Your task to perform on an android device: Open sound settings Image 0: 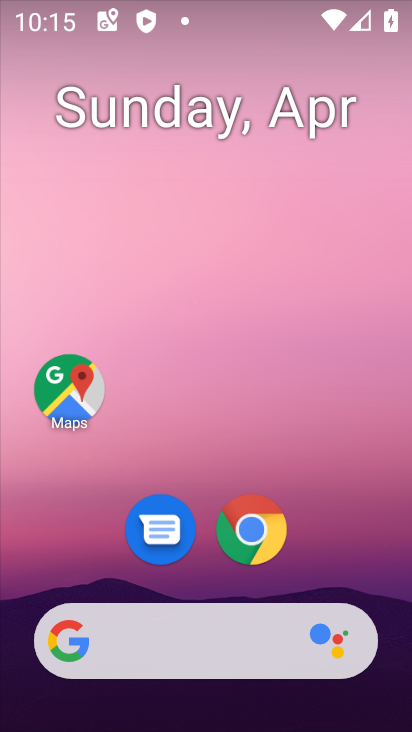
Step 0: drag from (212, 522) to (281, 188)
Your task to perform on an android device: Open sound settings Image 1: 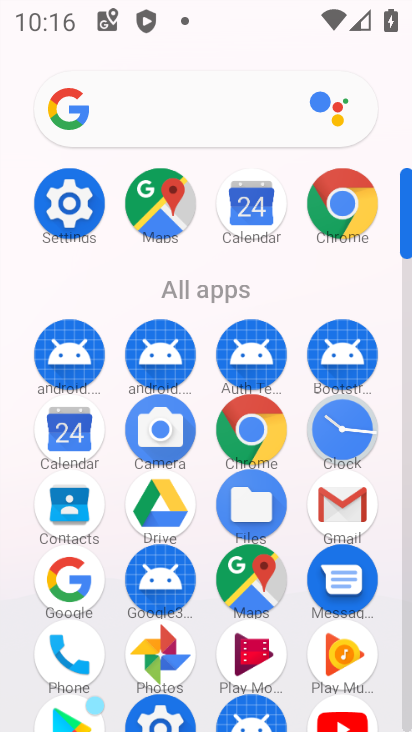
Step 1: click (68, 195)
Your task to perform on an android device: Open sound settings Image 2: 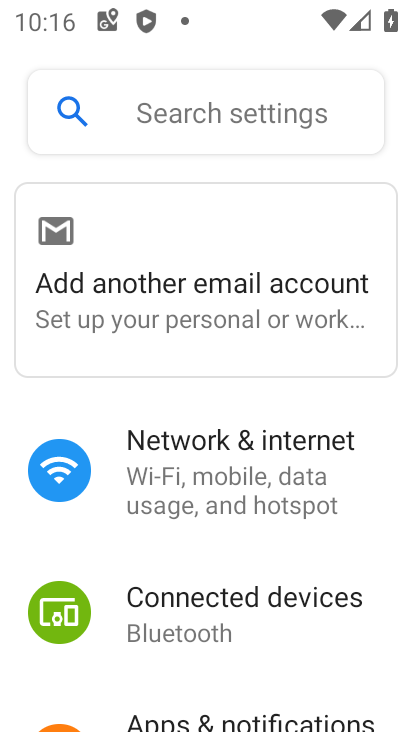
Step 2: drag from (199, 576) to (264, 190)
Your task to perform on an android device: Open sound settings Image 3: 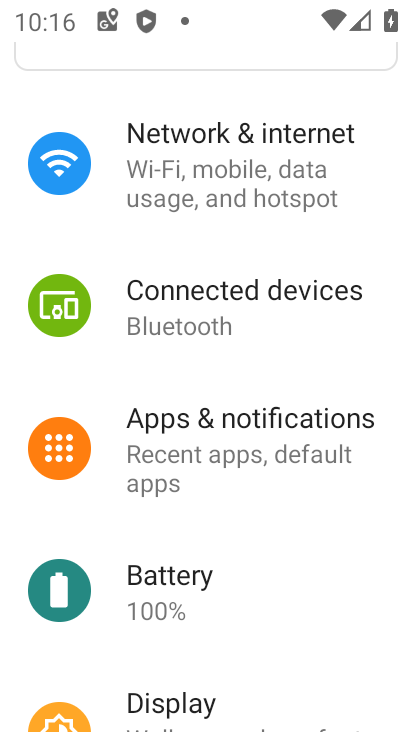
Step 3: drag from (183, 660) to (273, 152)
Your task to perform on an android device: Open sound settings Image 4: 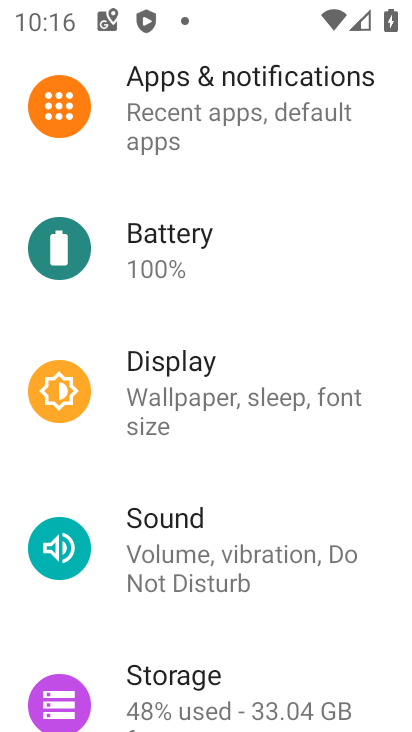
Step 4: click (212, 519)
Your task to perform on an android device: Open sound settings Image 5: 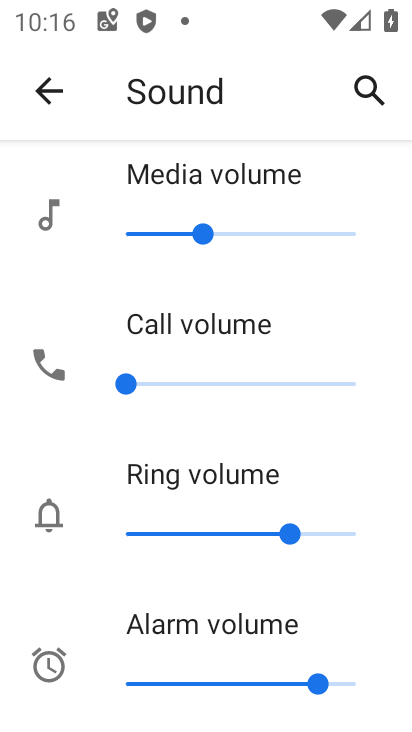
Step 5: task complete